Your task to perform on an android device: open chrome and create a bookmark for the current page Image 0: 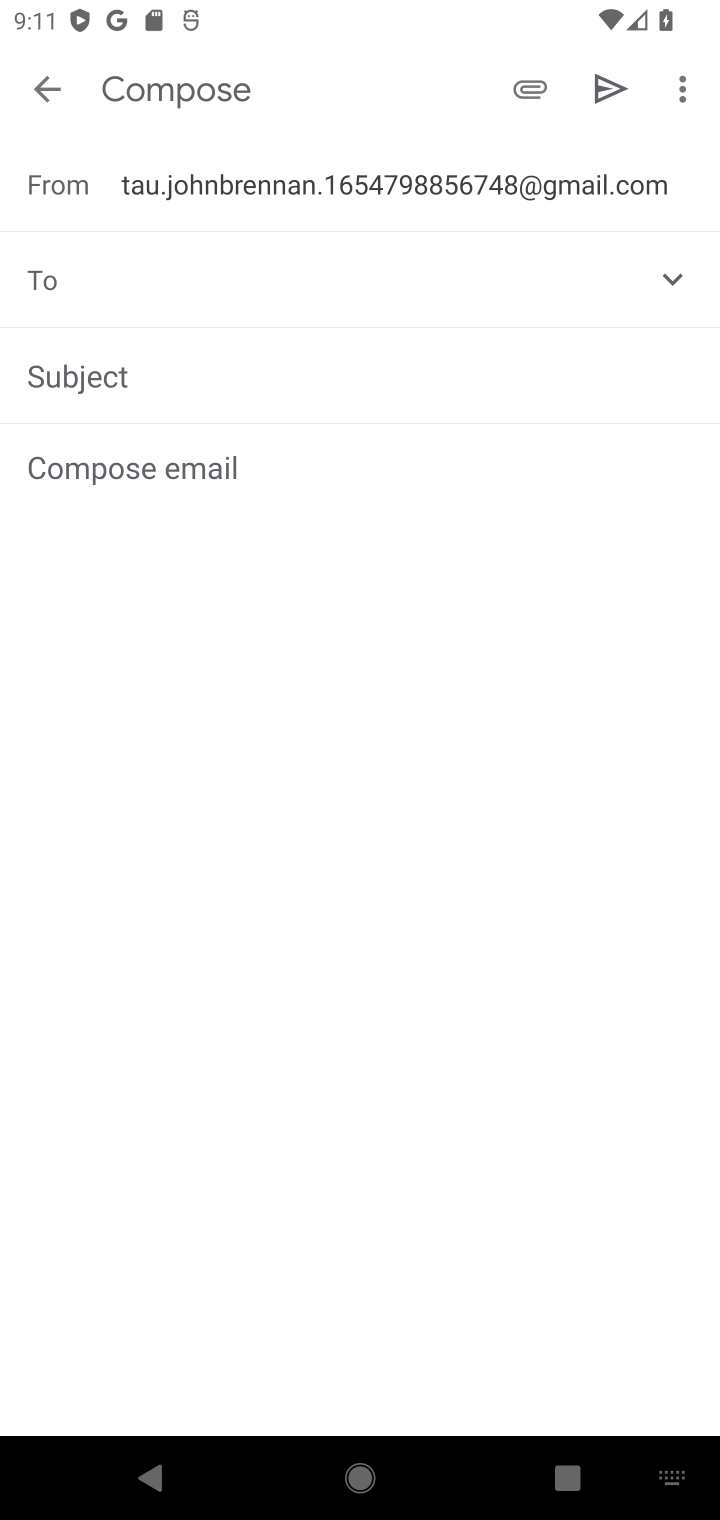
Step 0: press home button
Your task to perform on an android device: open chrome and create a bookmark for the current page Image 1: 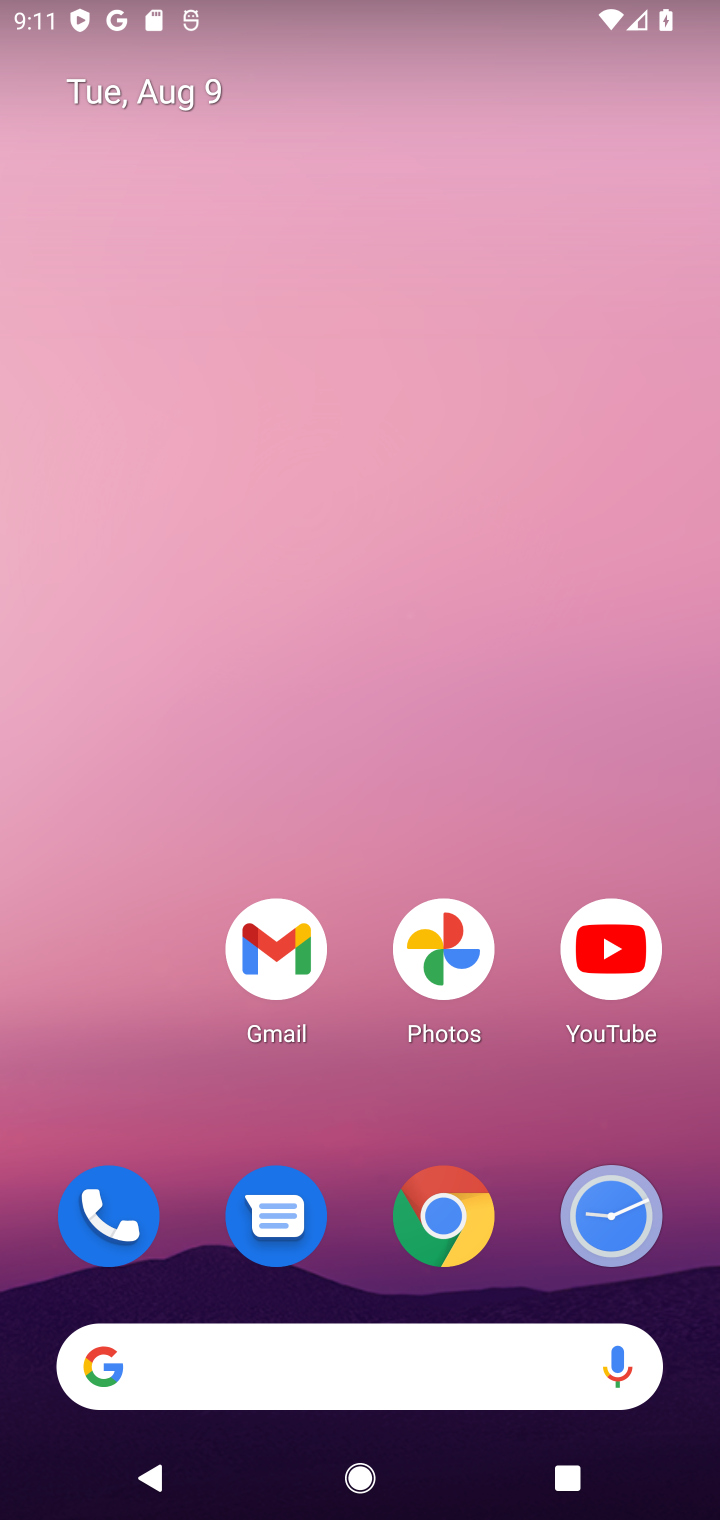
Step 1: click (455, 1246)
Your task to perform on an android device: open chrome and create a bookmark for the current page Image 2: 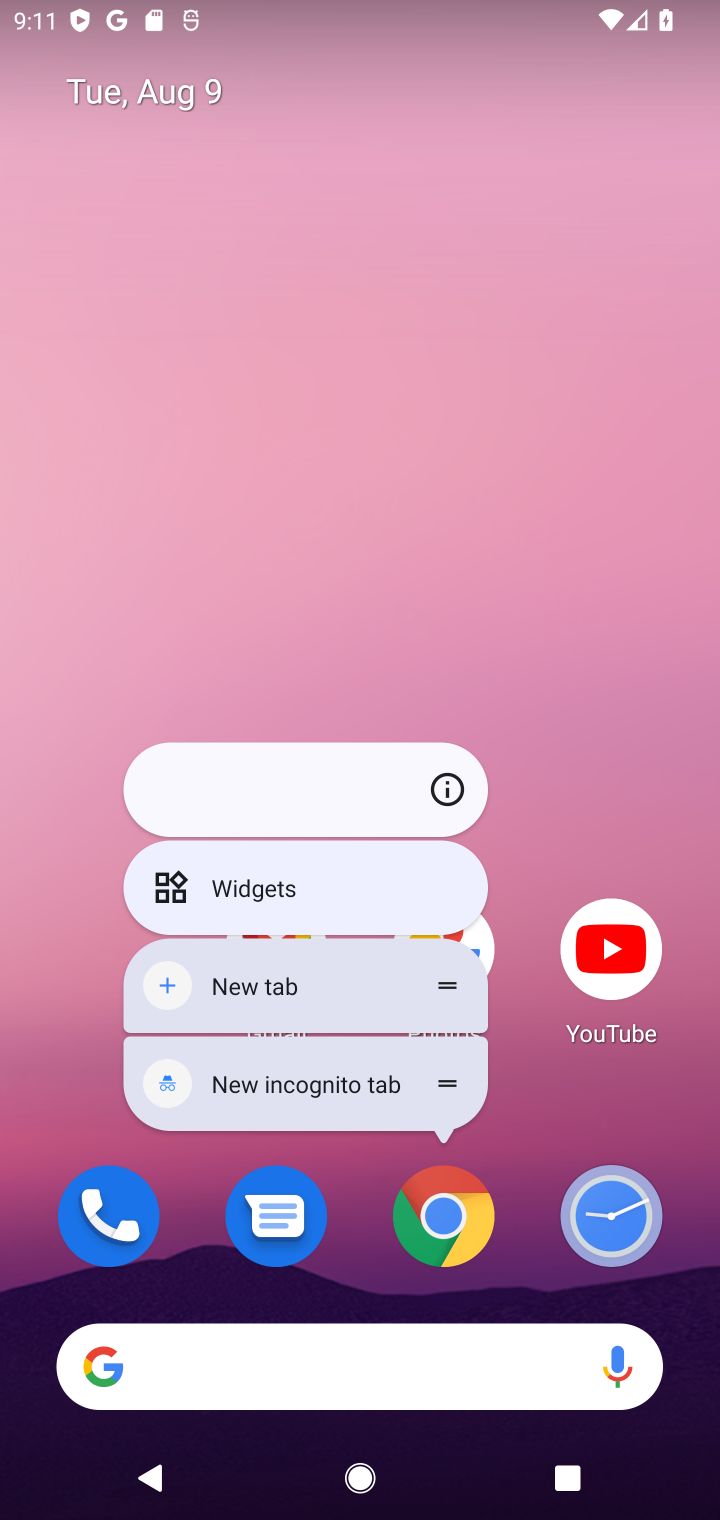
Step 2: click (440, 1213)
Your task to perform on an android device: open chrome and create a bookmark for the current page Image 3: 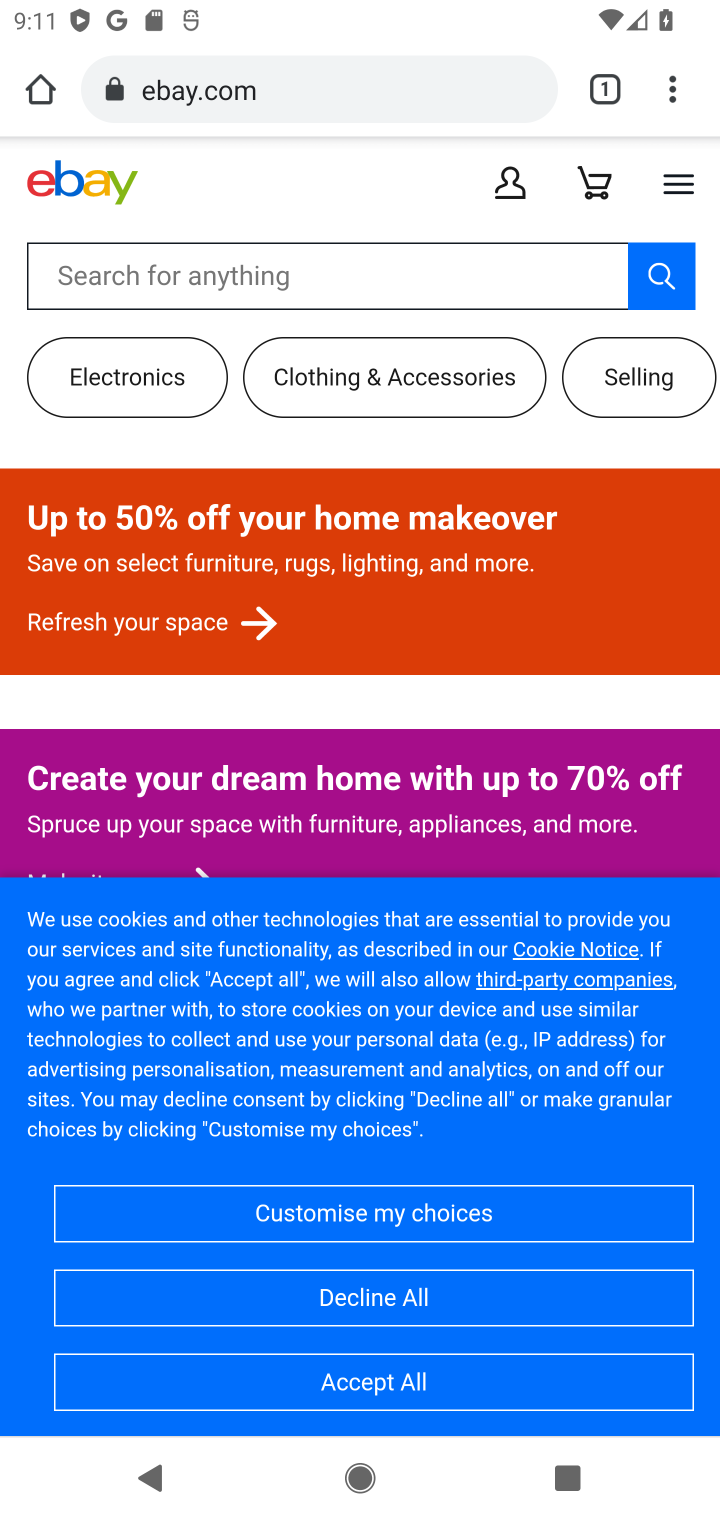
Step 3: click (667, 101)
Your task to perform on an android device: open chrome and create a bookmark for the current page Image 4: 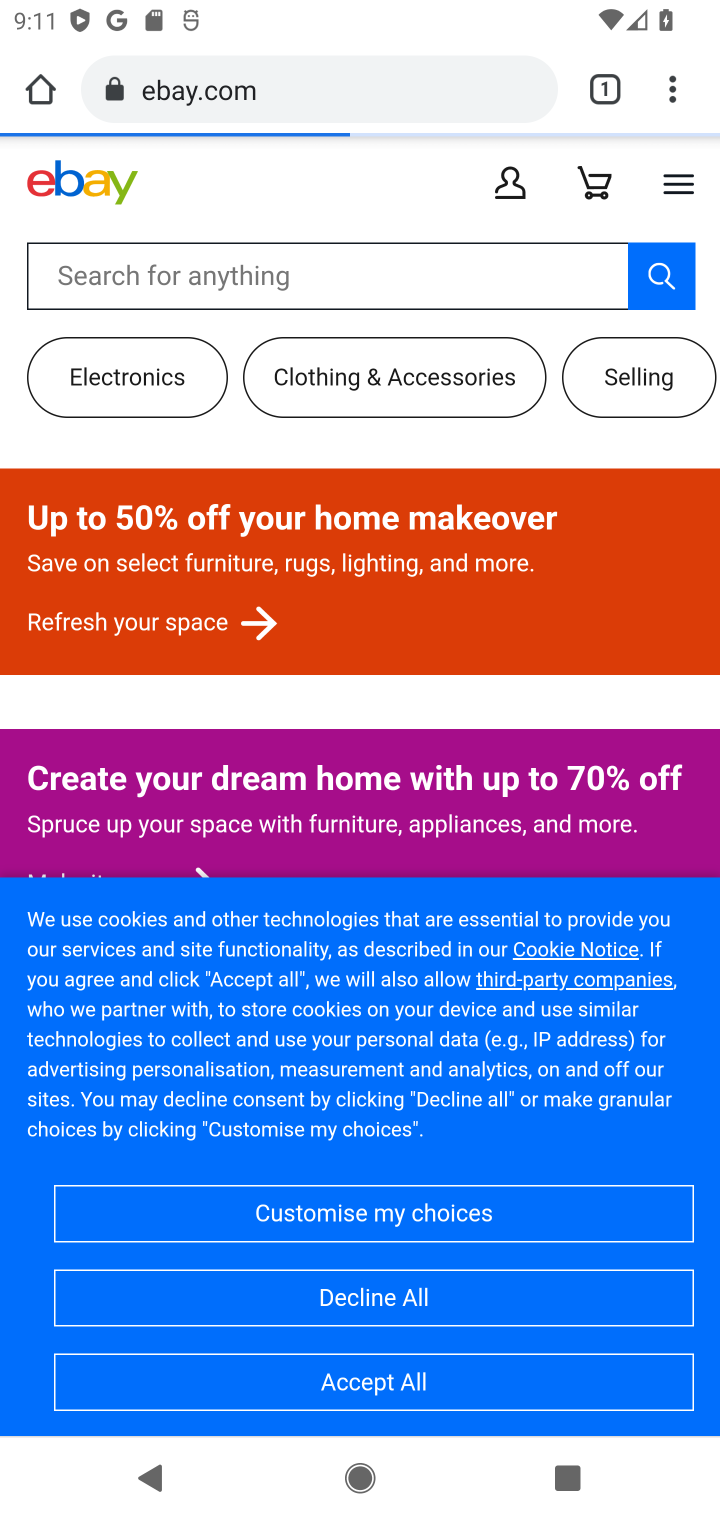
Step 4: click (667, 85)
Your task to perform on an android device: open chrome and create a bookmark for the current page Image 5: 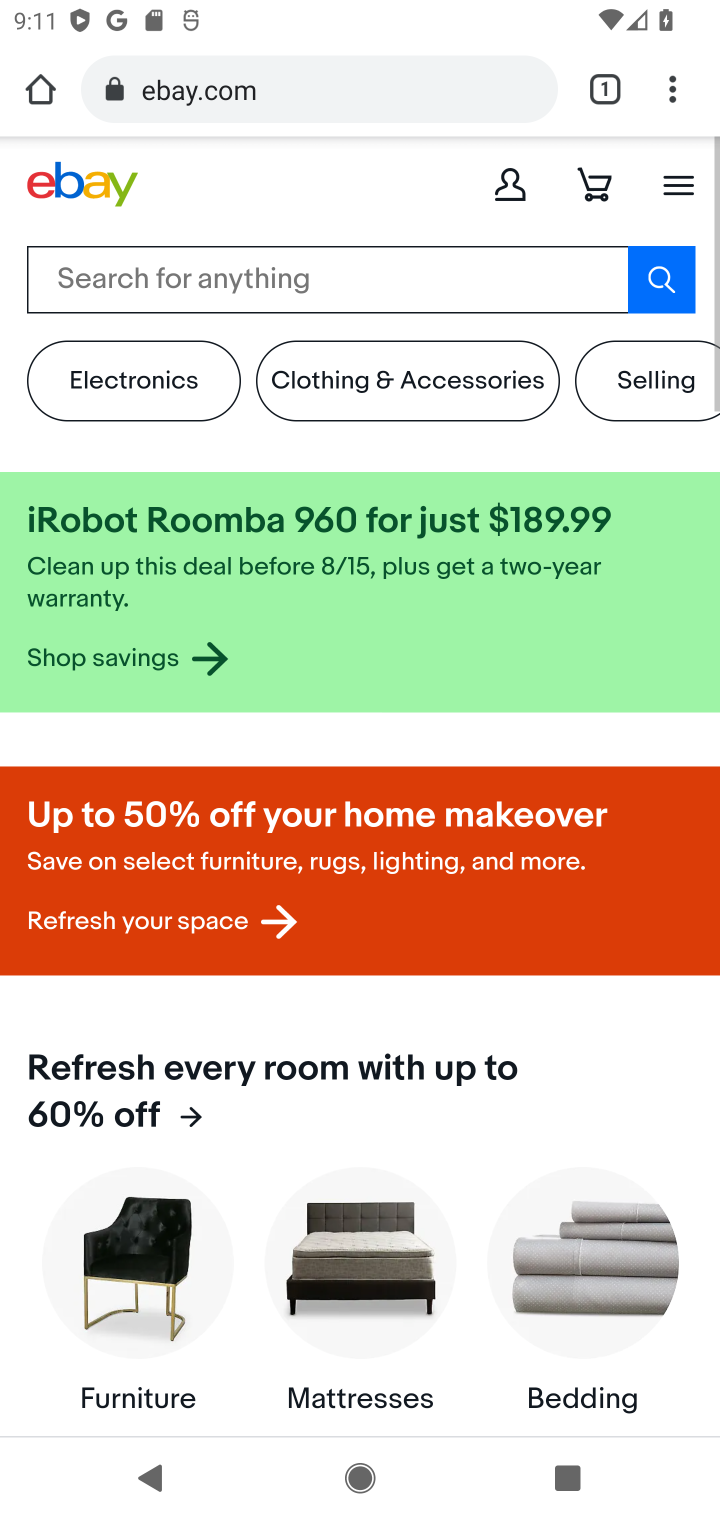
Step 5: click (673, 96)
Your task to perform on an android device: open chrome and create a bookmark for the current page Image 6: 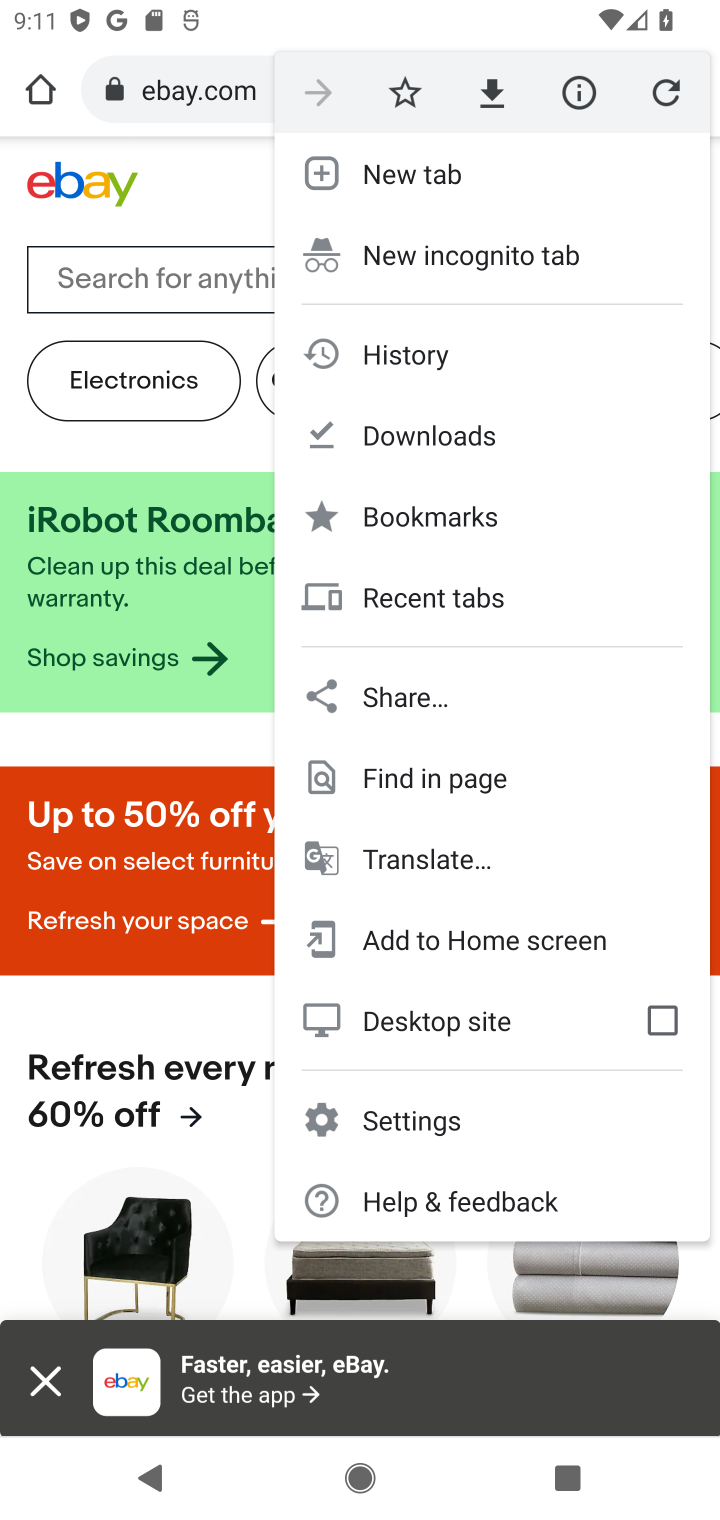
Step 6: click (399, 99)
Your task to perform on an android device: open chrome and create a bookmark for the current page Image 7: 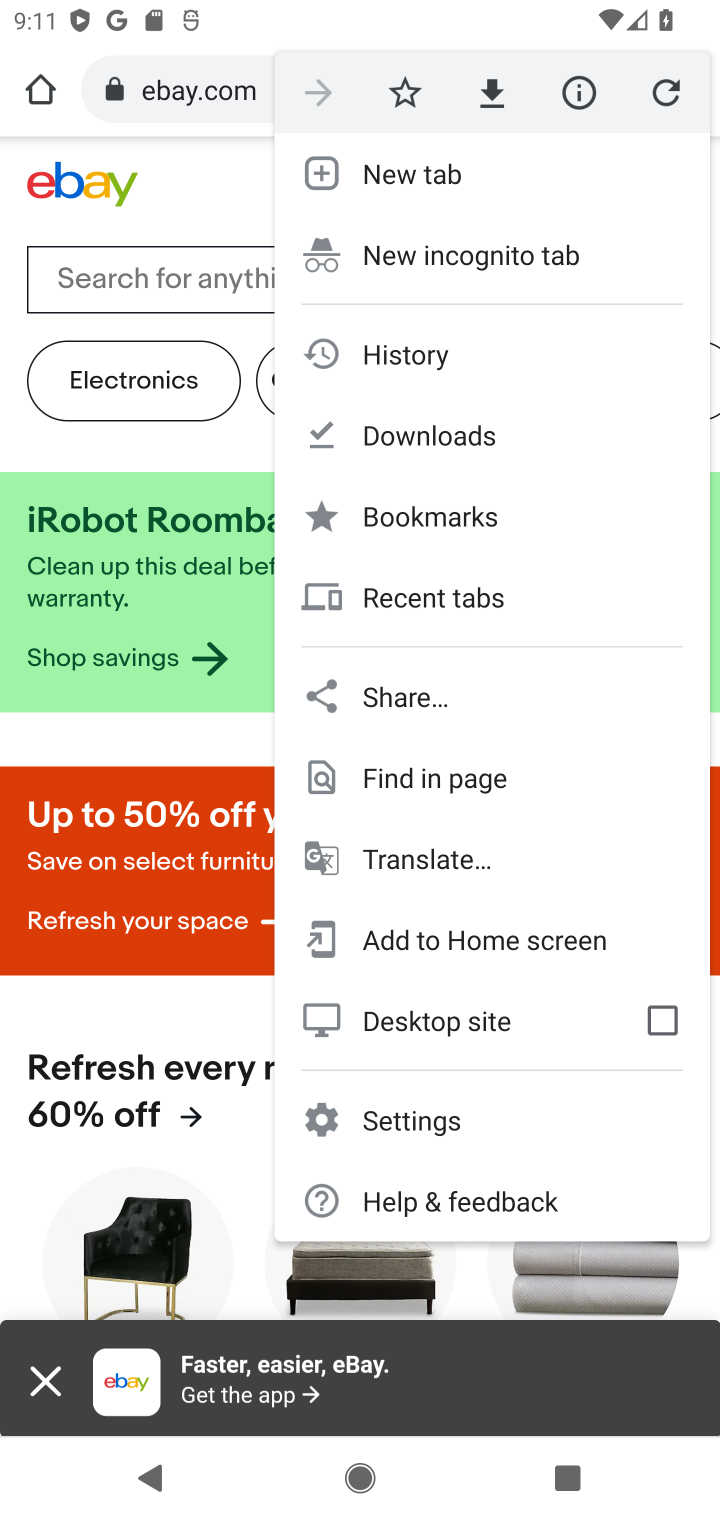
Step 7: click (406, 89)
Your task to perform on an android device: open chrome and create a bookmark for the current page Image 8: 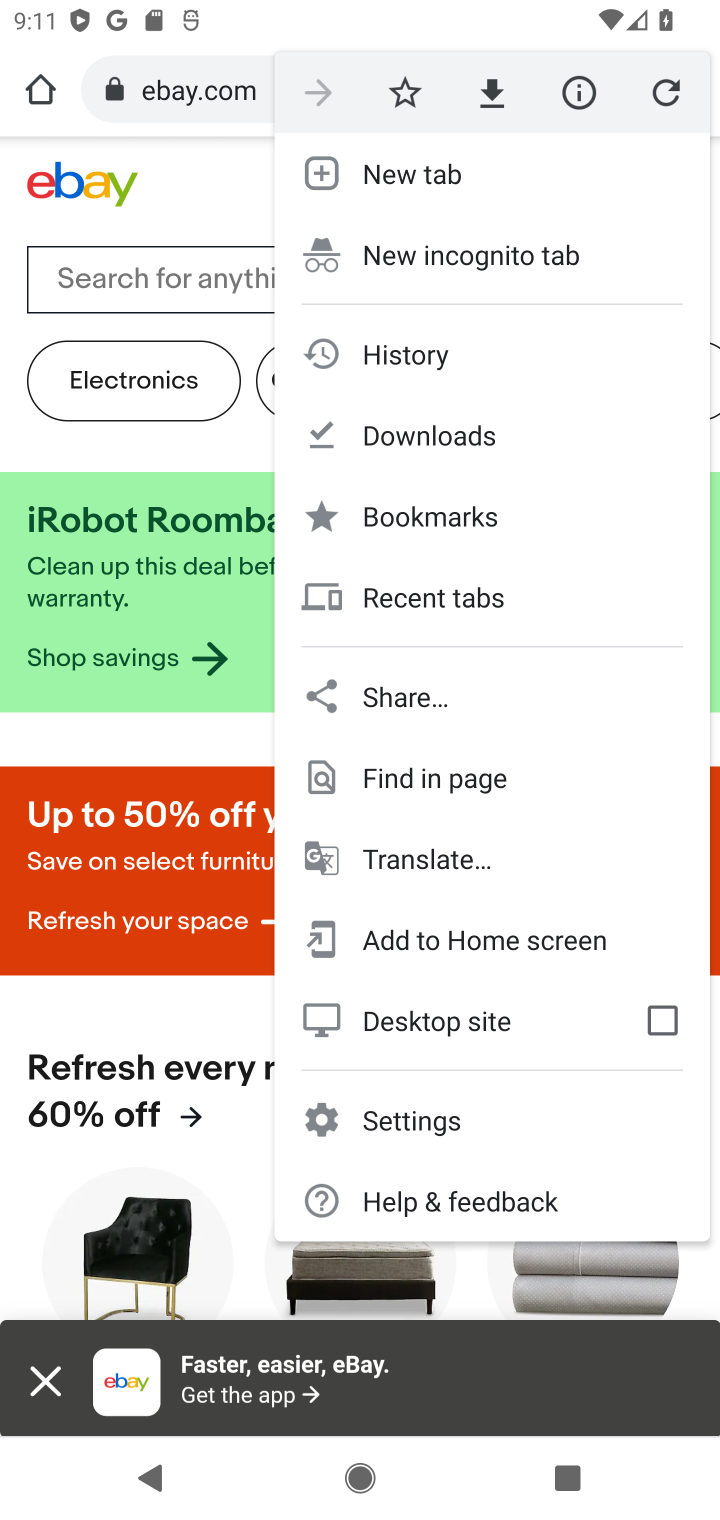
Step 8: click (409, 96)
Your task to perform on an android device: open chrome and create a bookmark for the current page Image 9: 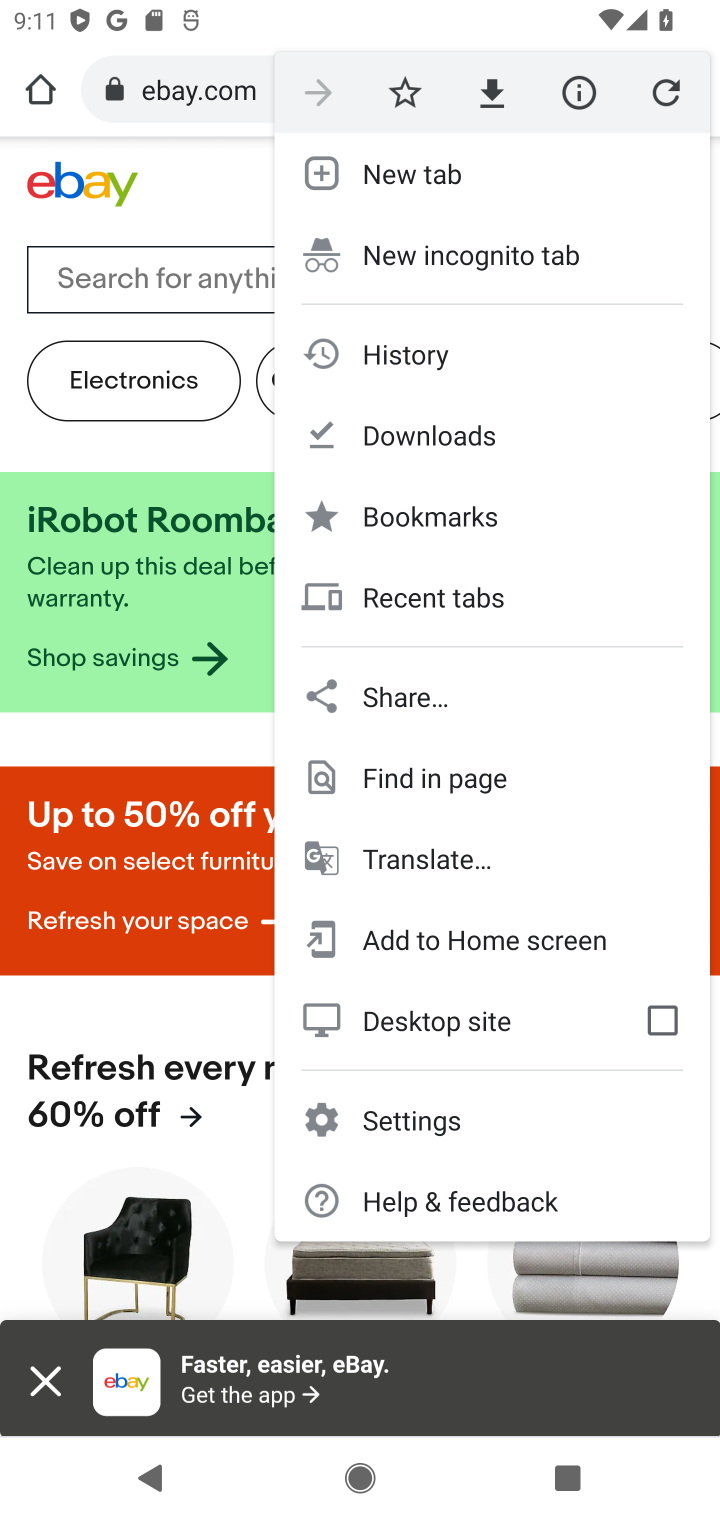
Step 9: click (404, 79)
Your task to perform on an android device: open chrome and create a bookmark for the current page Image 10: 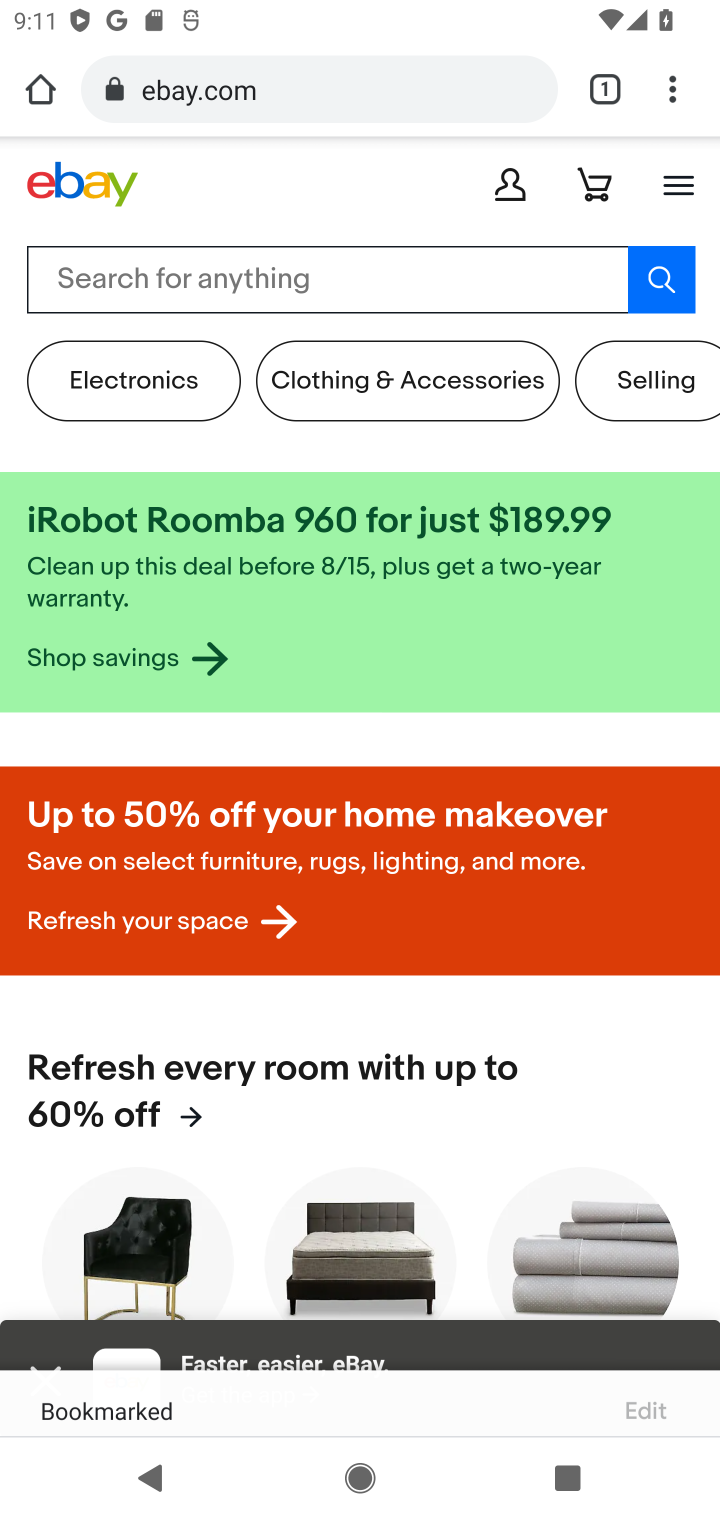
Step 10: task complete